Your task to perform on an android device: turn pop-ups off in chrome Image 0: 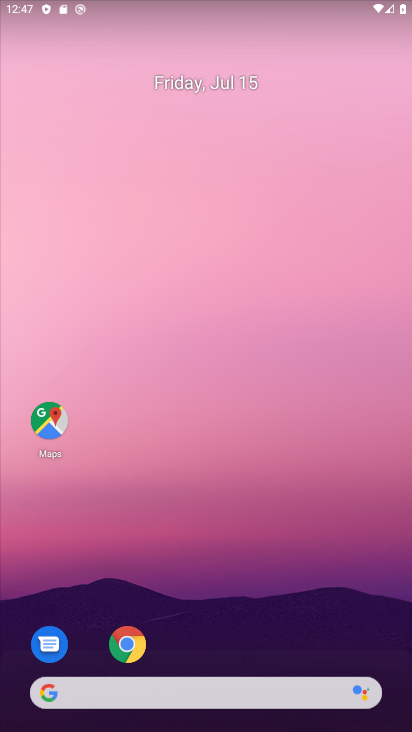
Step 0: click (131, 647)
Your task to perform on an android device: turn pop-ups off in chrome Image 1: 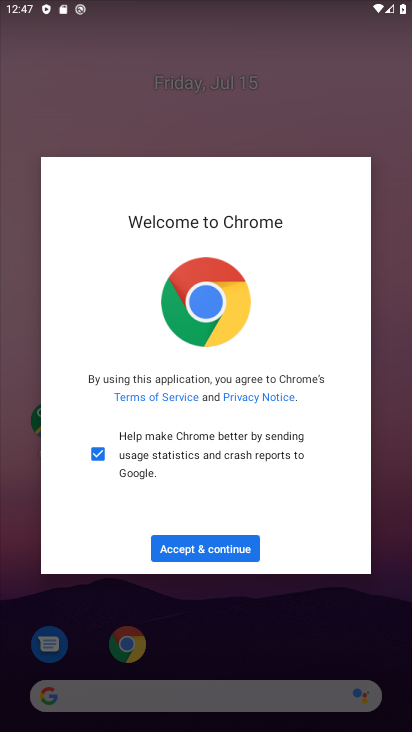
Step 1: click (210, 543)
Your task to perform on an android device: turn pop-ups off in chrome Image 2: 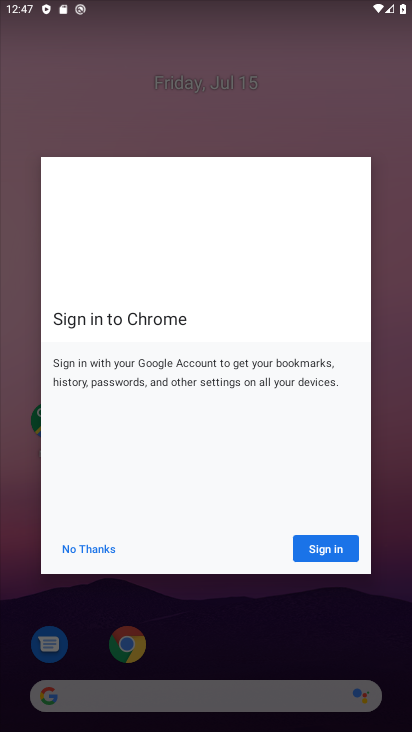
Step 2: click (306, 549)
Your task to perform on an android device: turn pop-ups off in chrome Image 3: 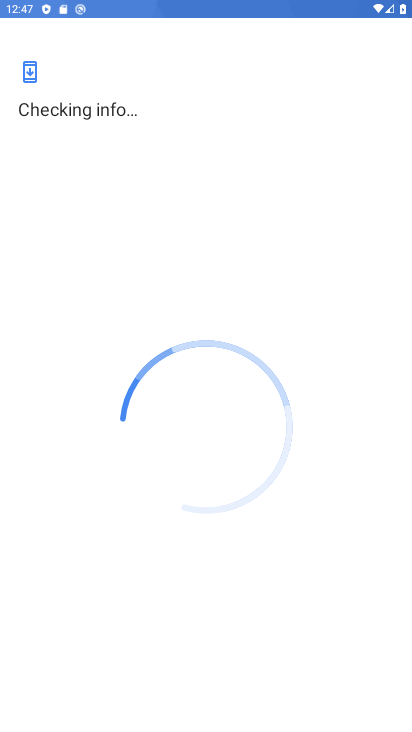
Step 3: task complete